Your task to perform on an android device: change the clock display to show seconds Image 0: 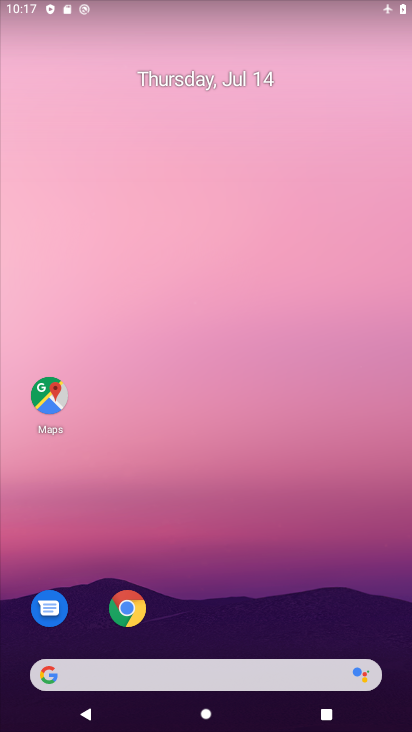
Step 0: drag from (215, 613) to (253, 49)
Your task to perform on an android device: change the clock display to show seconds Image 1: 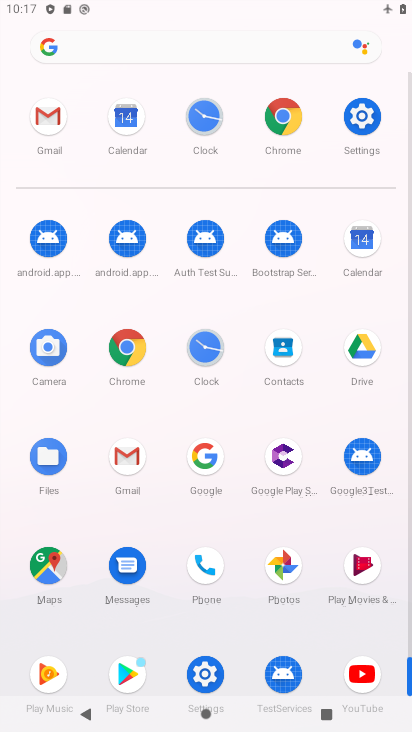
Step 1: click (215, 354)
Your task to perform on an android device: change the clock display to show seconds Image 2: 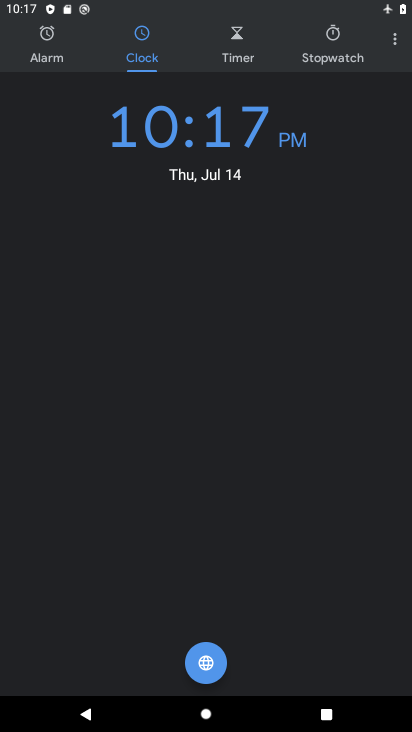
Step 2: click (396, 42)
Your task to perform on an android device: change the clock display to show seconds Image 3: 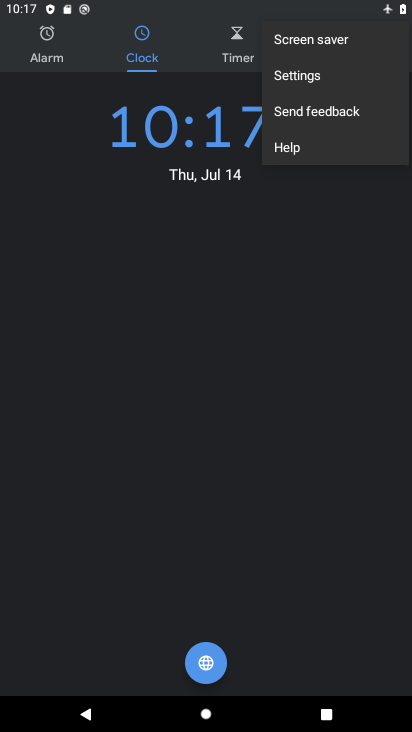
Step 3: click (304, 78)
Your task to perform on an android device: change the clock display to show seconds Image 4: 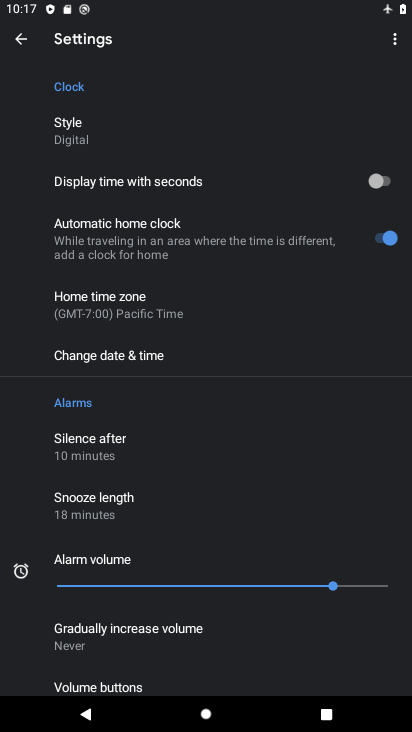
Step 4: click (84, 144)
Your task to perform on an android device: change the clock display to show seconds Image 5: 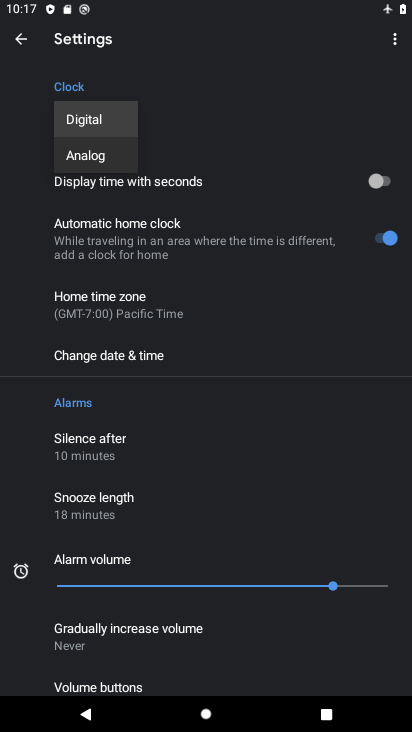
Step 5: click (110, 162)
Your task to perform on an android device: change the clock display to show seconds Image 6: 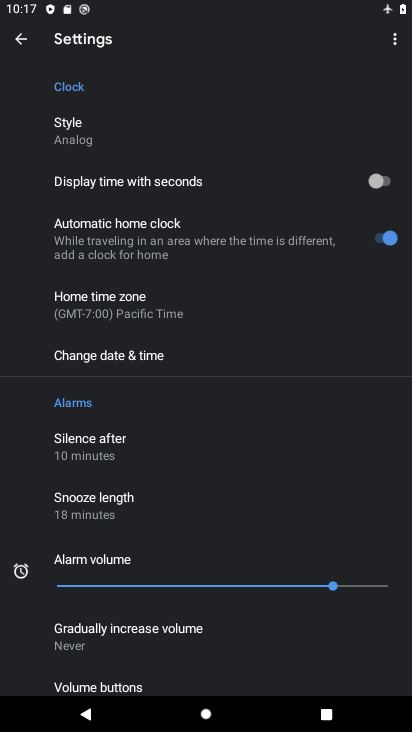
Step 6: click (389, 182)
Your task to perform on an android device: change the clock display to show seconds Image 7: 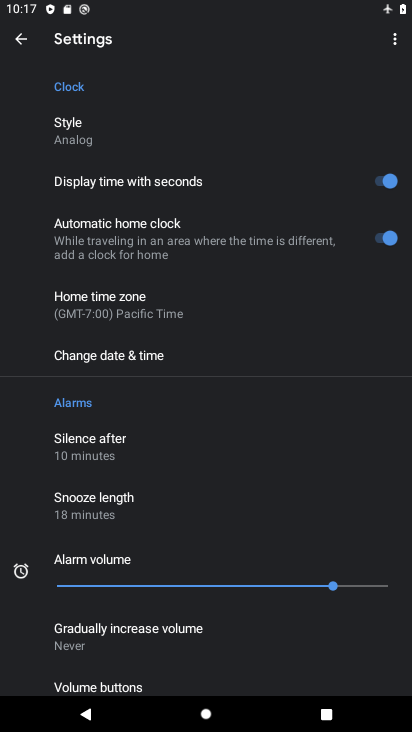
Step 7: task complete